Your task to perform on an android device: delete browsing data in the chrome app Image 0: 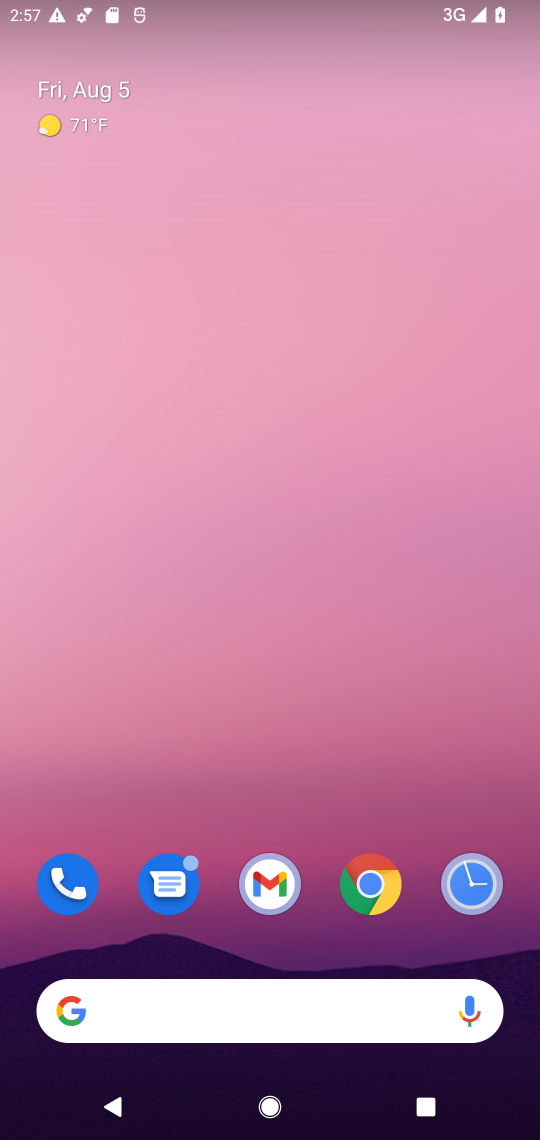
Step 0: drag from (441, 815) to (261, 238)
Your task to perform on an android device: delete browsing data in the chrome app Image 1: 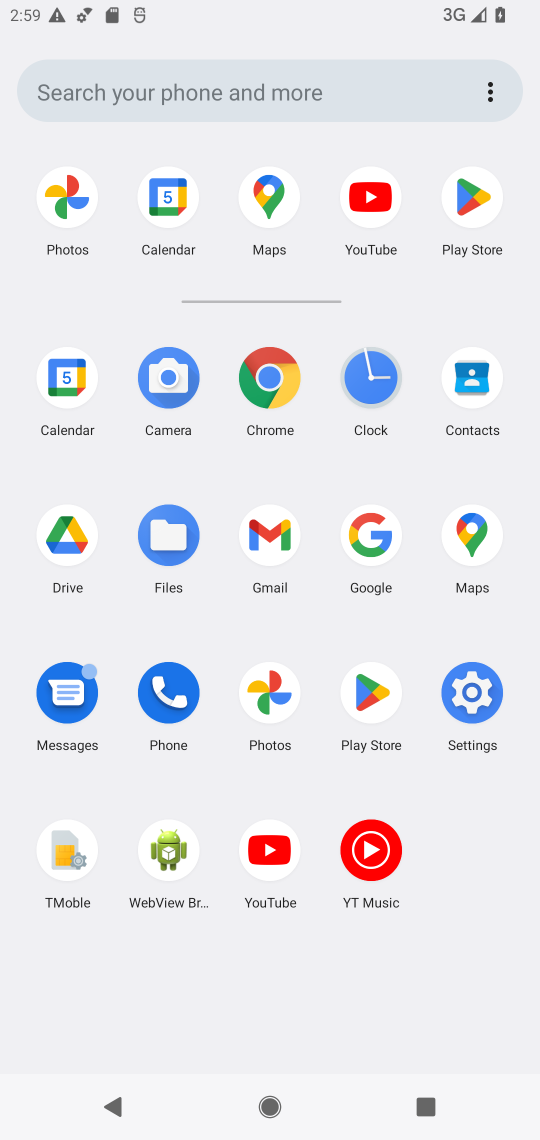
Step 1: click (275, 405)
Your task to perform on an android device: delete browsing data in the chrome app Image 2: 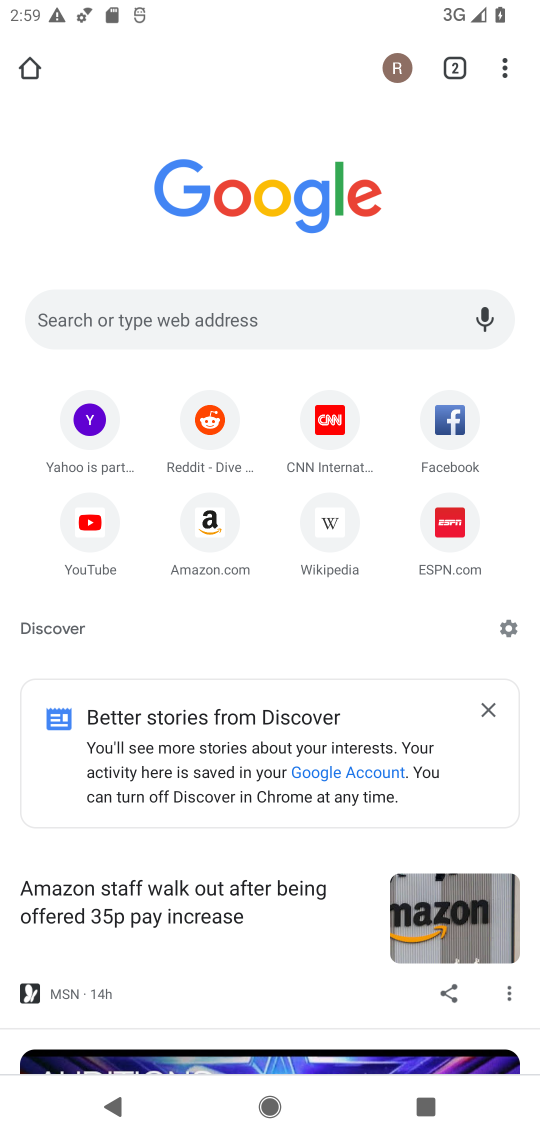
Step 2: click (510, 62)
Your task to perform on an android device: delete browsing data in the chrome app Image 3: 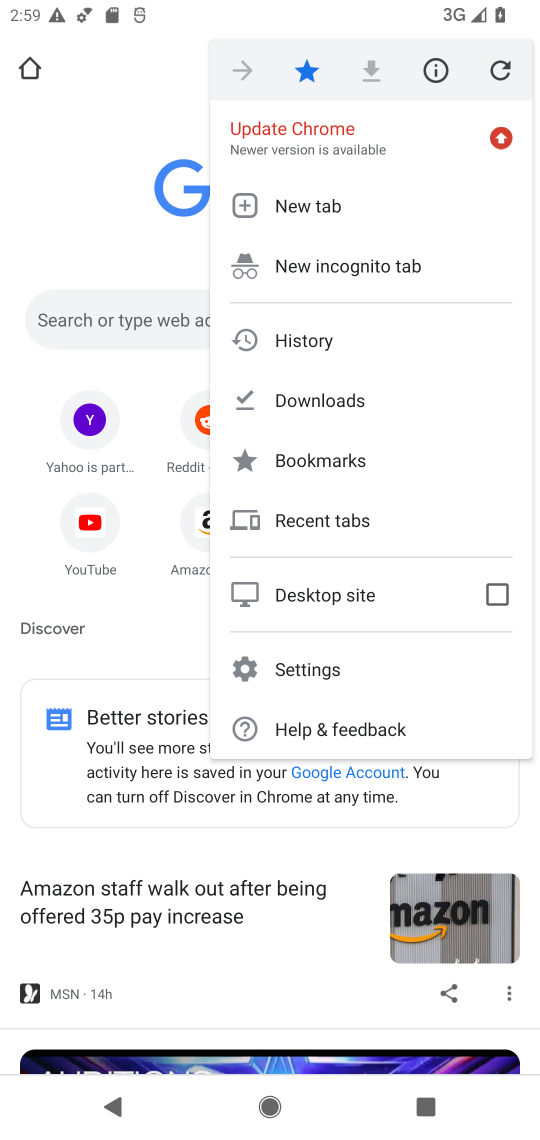
Step 3: click (319, 342)
Your task to perform on an android device: delete browsing data in the chrome app Image 4: 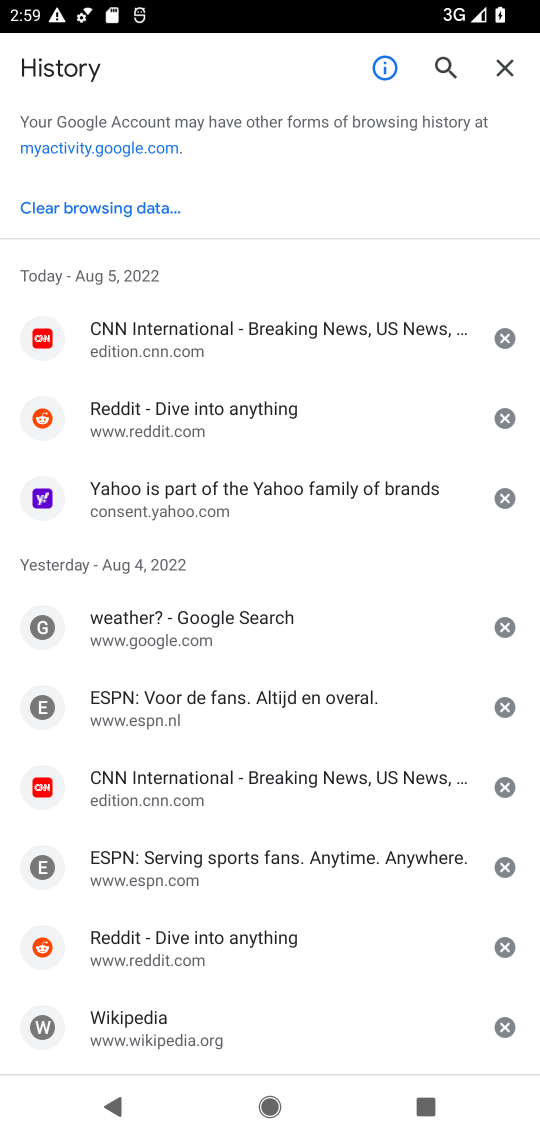
Step 4: click (124, 202)
Your task to perform on an android device: delete browsing data in the chrome app Image 5: 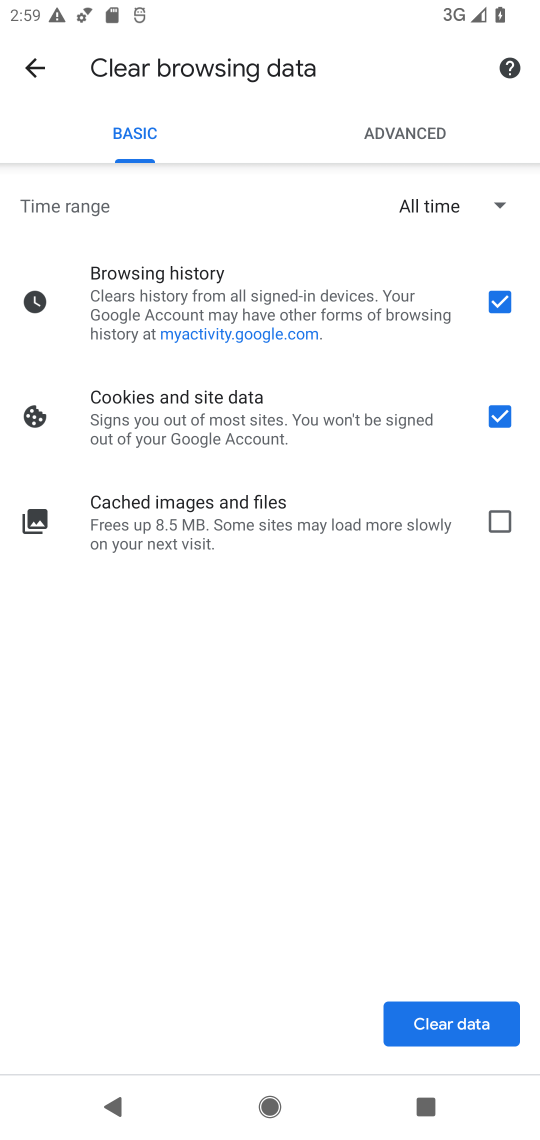
Step 5: click (440, 1029)
Your task to perform on an android device: delete browsing data in the chrome app Image 6: 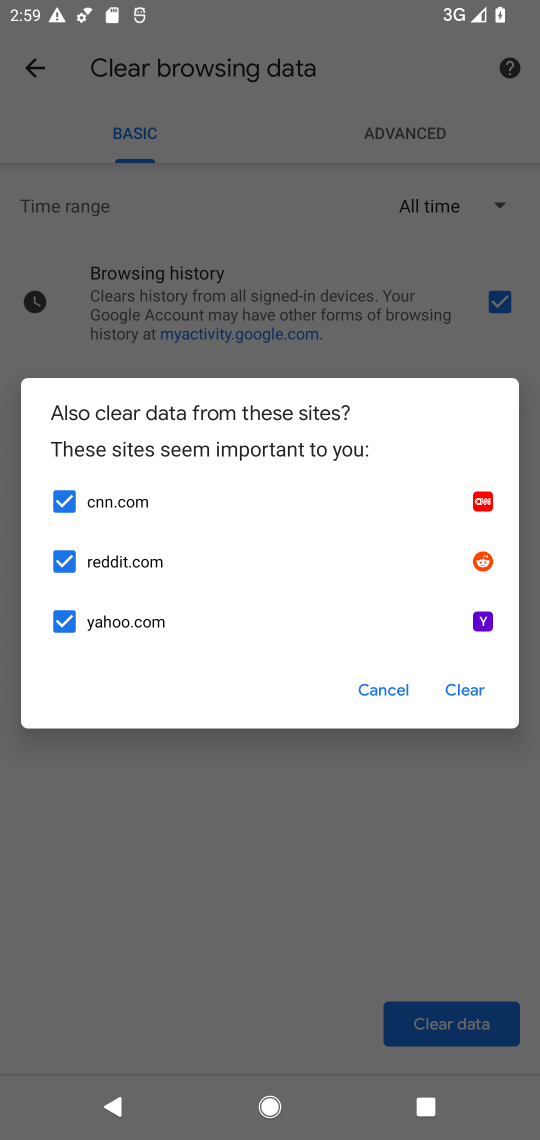
Step 6: click (464, 689)
Your task to perform on an android device: delete browsing data in the chrome app Image 7: 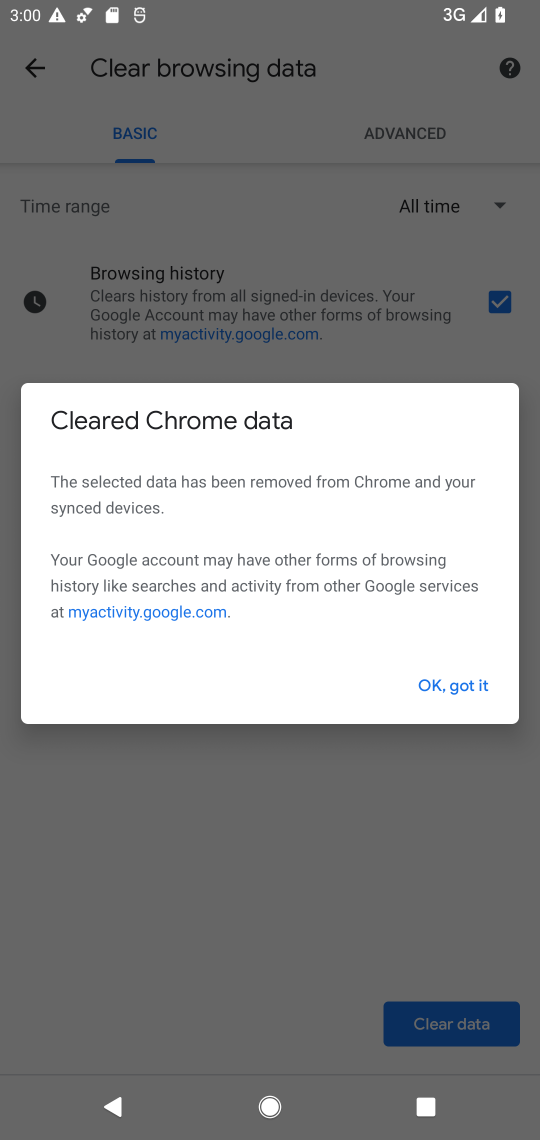
Step 7: click (479, 685)
Your task to perform on an android device: delete browsing data in the chrome app Image 8: 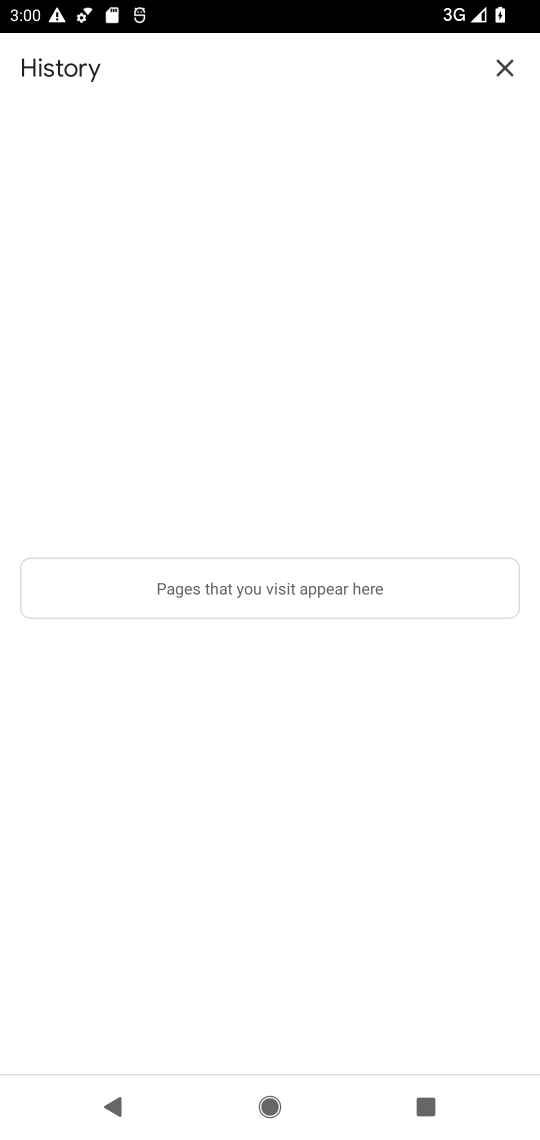
Step 8: task complete